Your task to perform on an android device: star an email in the gmail app Image 0: 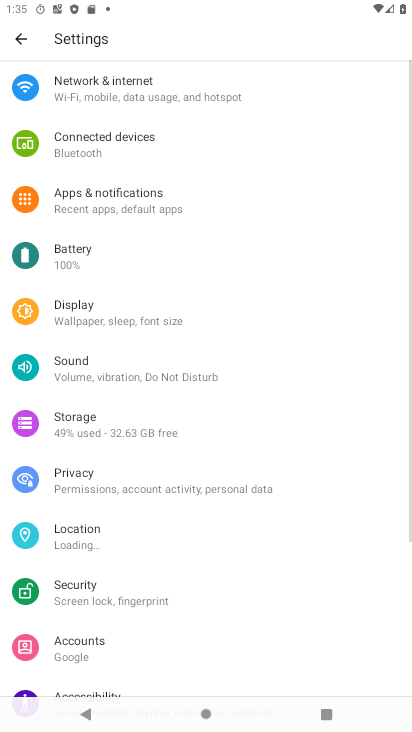
Step 0: press home button
Your task to perform on an android device: star an email in the gmail app Image 1: 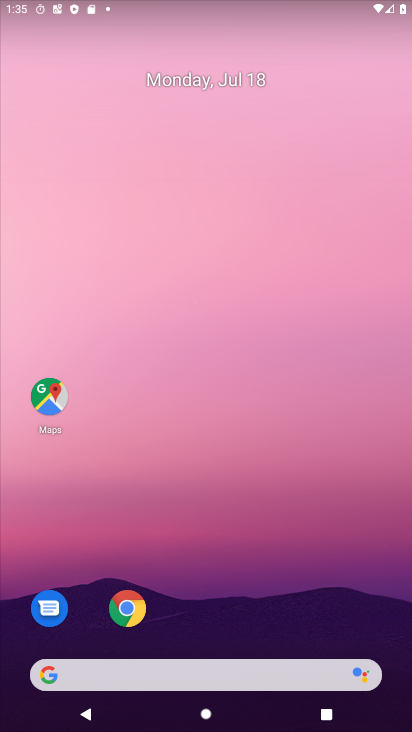
Step 1: drag from (239, 718) to (243, 184)
Your task to perform on an android device: star an email in the gmail app Image 2: 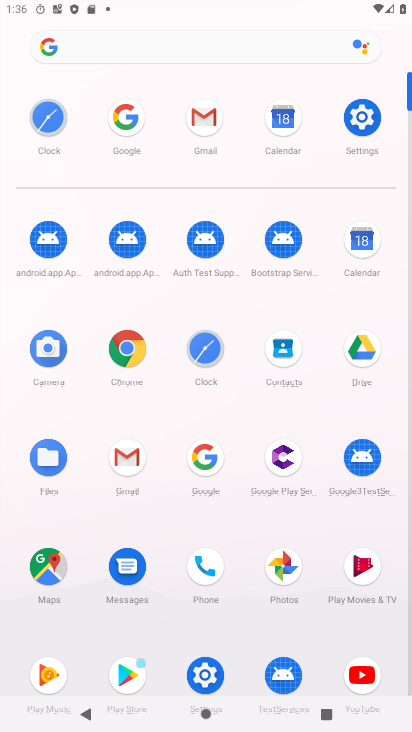
Step 2: click (123, 450)
Your task to perform on an android device: star an email in the gmail app Image 3: 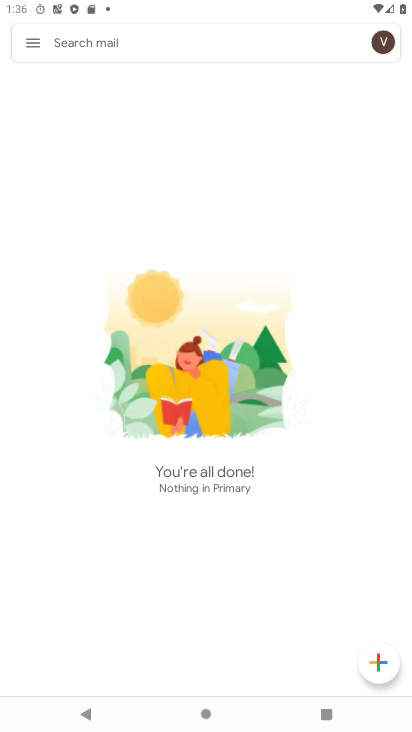
Step 3: task complete